Your task to perform on an android device: Show me productivity apps on the Play Store Image 0: 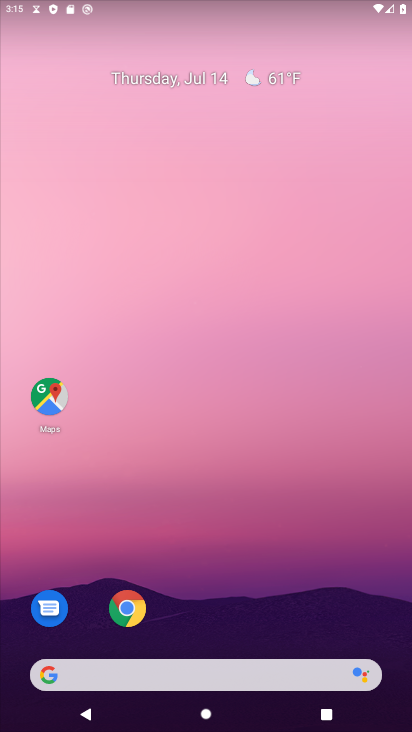
Step 0: drag from (194, 676) to (138, 124)
Your task to perform on an android device: Show me productivity apps on the Play Store Image 1: 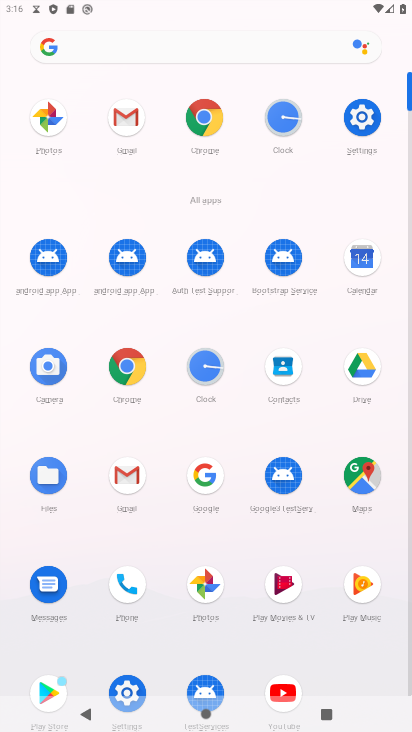
Step 1: click (48, 680)
Your task to perform on an android device: Show me productivity apps on the Play Store Image 2: 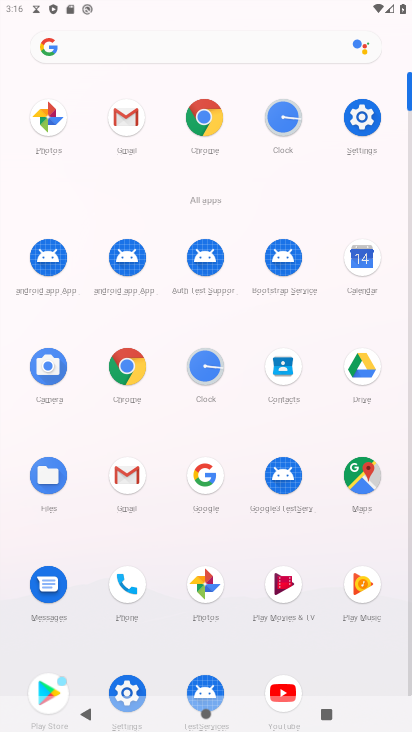
Step 2: click (51, 677)
Your task to perform on an android device: Show me productivity apps on the Play Store Image 3: 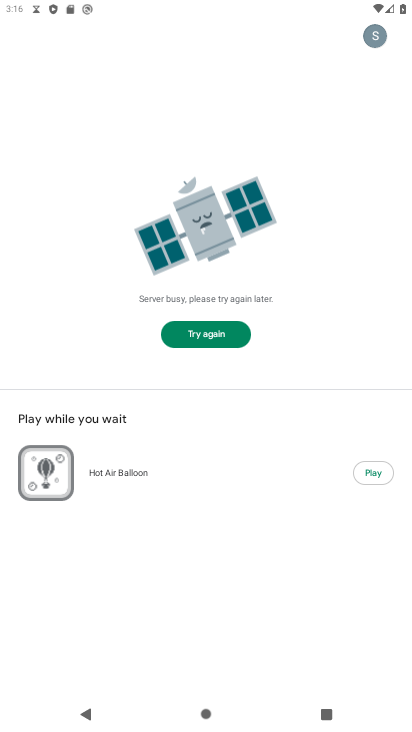
Step 3: task complete